Your task to perform on an android device: turn off airplane mode Image 0: 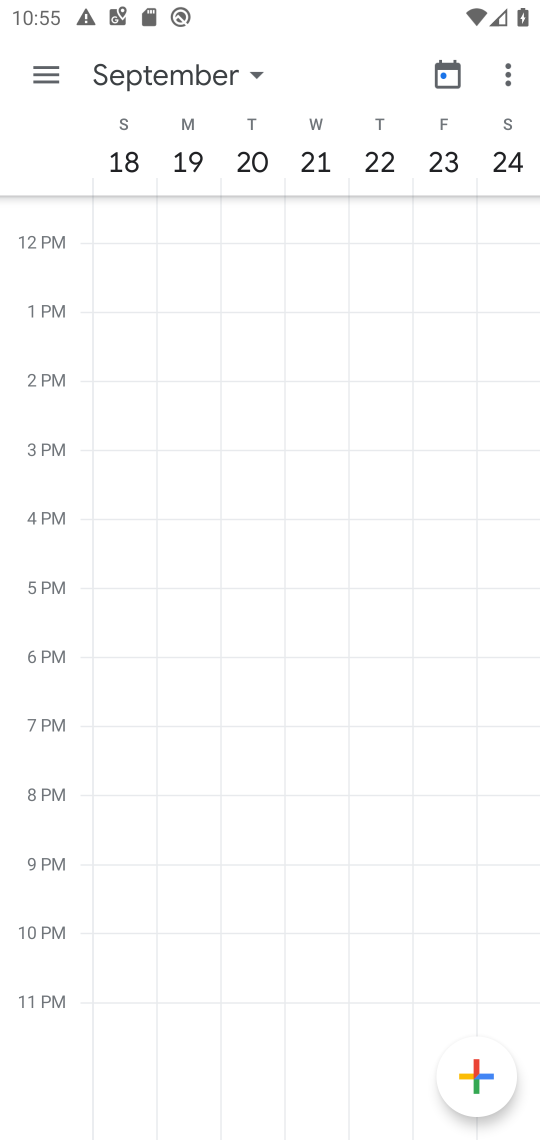
Step 0: press back button
Your task to perform on an android device: turn off airplane mode Image 1: 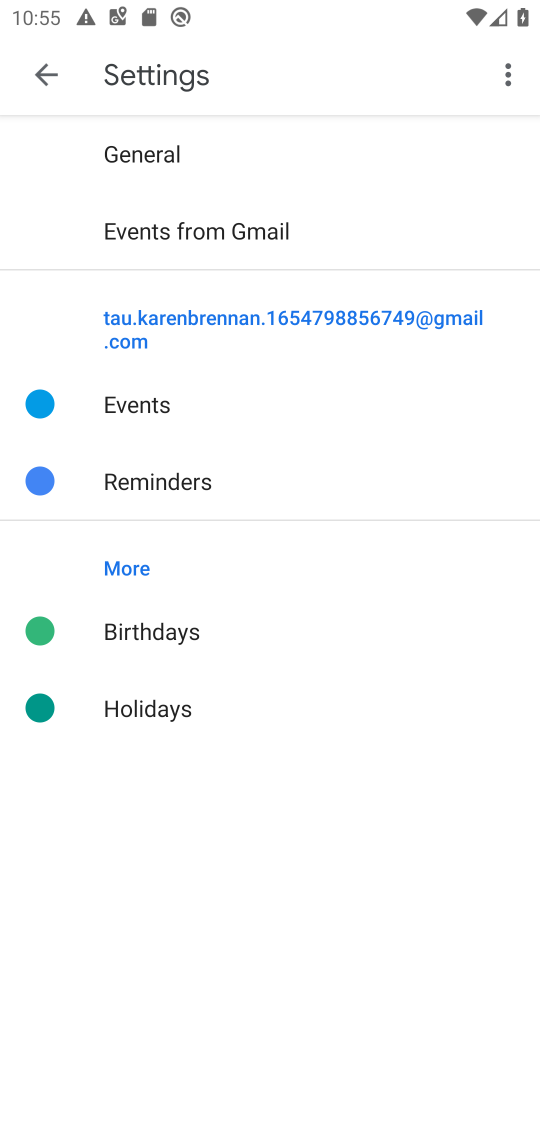
Step 1: press home button
Your task to perform on an android device: turn off airplane mode Image 2: 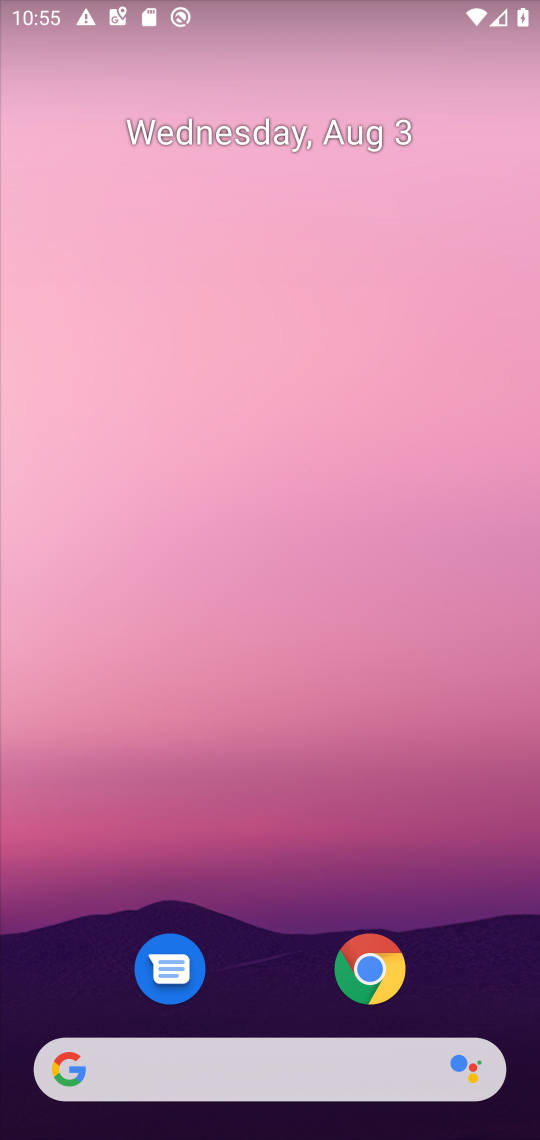
Step 2: drag from (280, 1007) to (196, 162)
Your task to perform on an android device: turn off airplane mode Image 3: 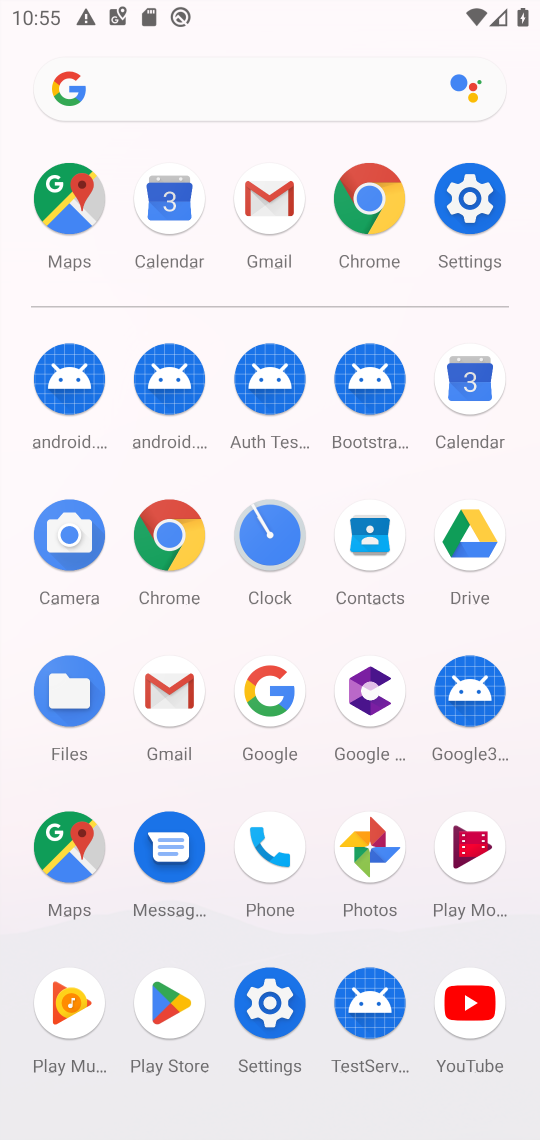
Step 3: click (266, 1042)
Your task to perform on an android device: turn off airplane mode Image 4: 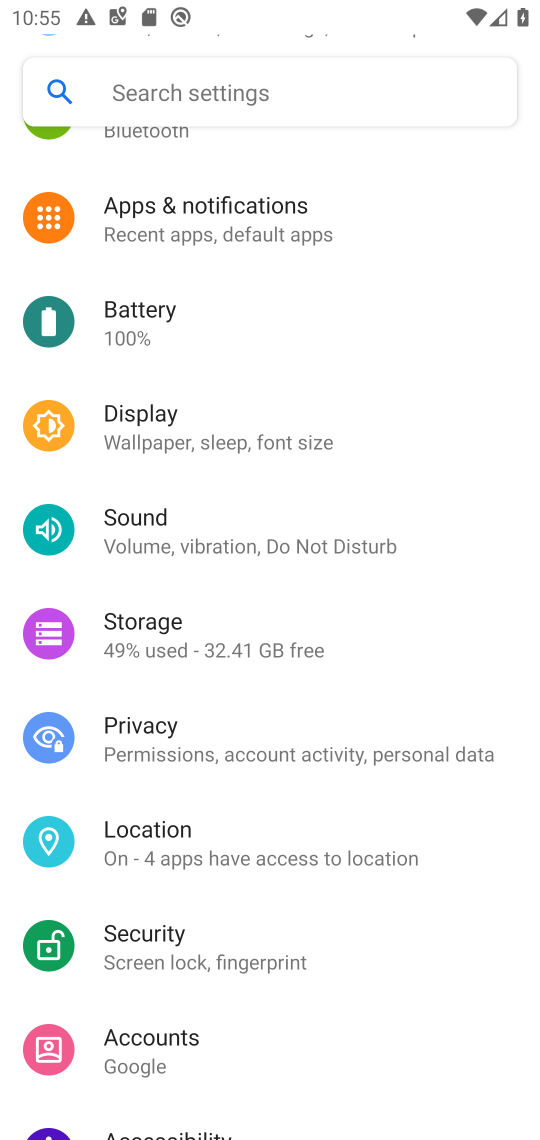
Step 4: drag from (379, 195) to (337, 608)
Your task to perform on an android device: turn off airplane mode Image 5: 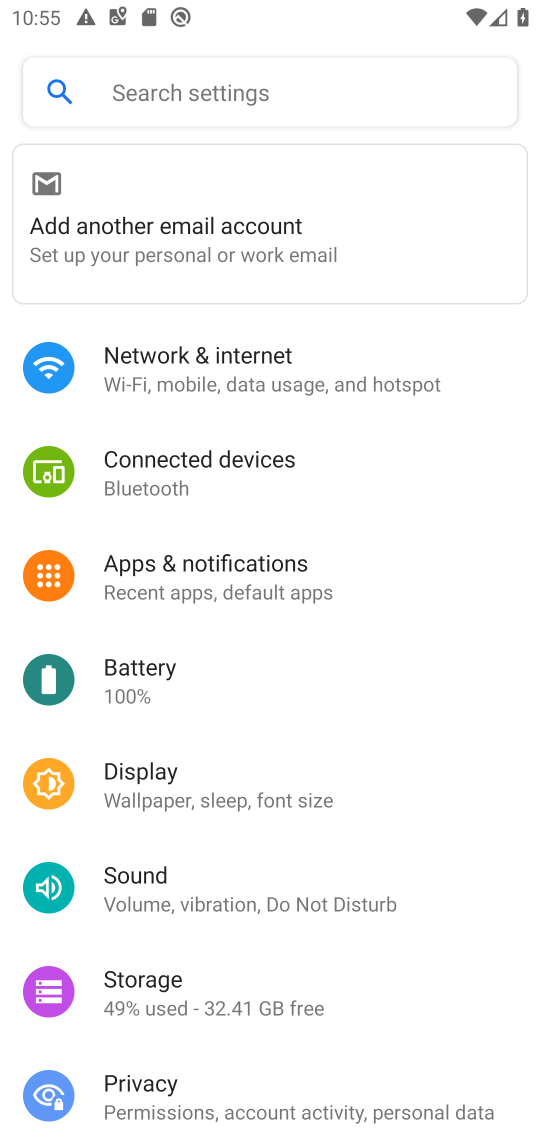
Step 5: click (160, 360)
Your task to perform on an android device: turn off airplane mode Image 6: 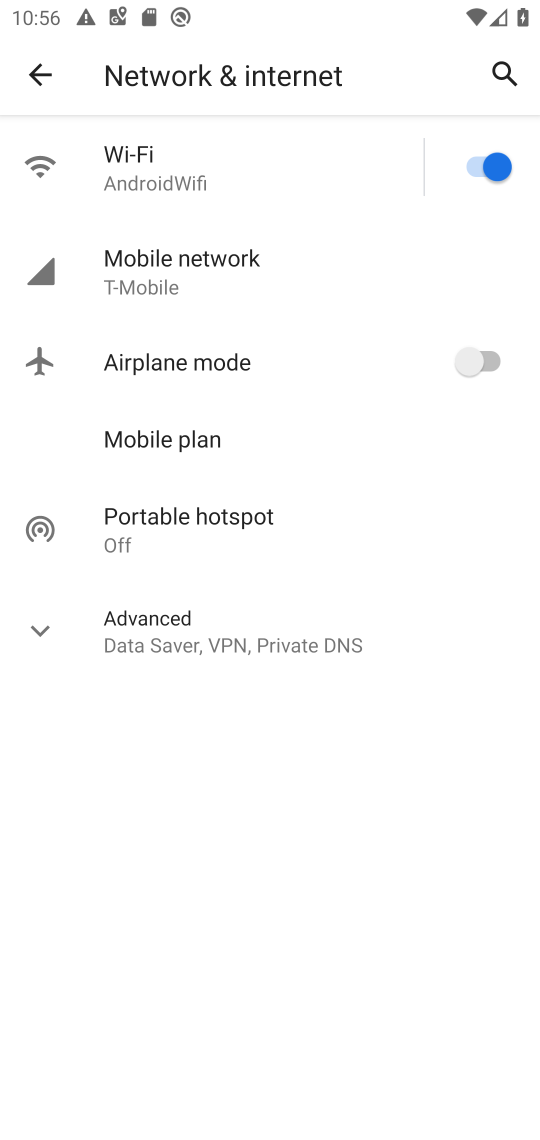
Step 6: task complete